Your task to perform on an android device: Go to wifi settings Image 0: 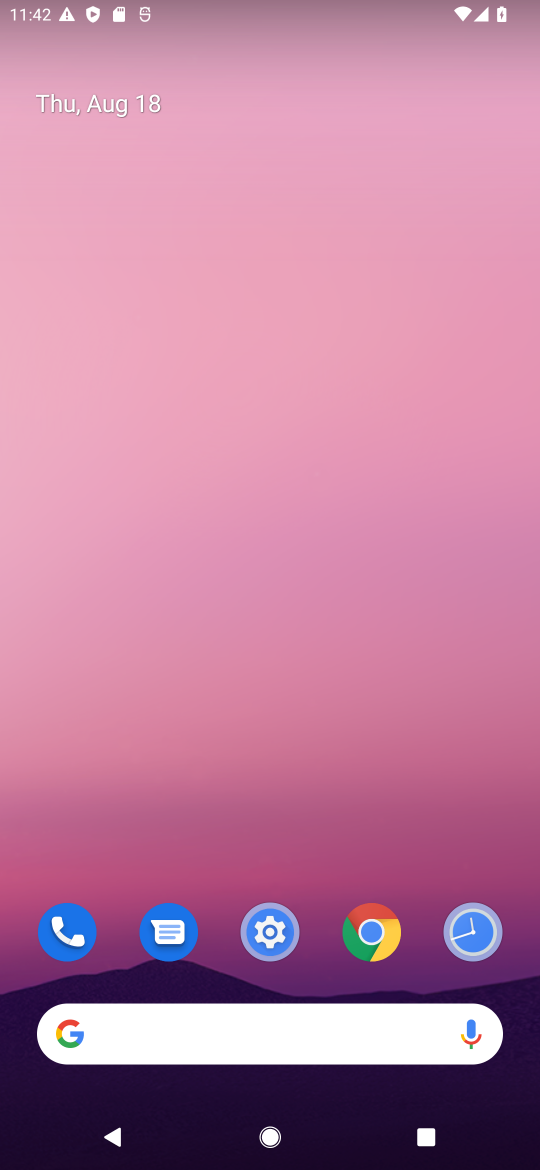
Step 0: click (255, 940)
Your task to perform on an android device: Go to wifi settings Image 1: 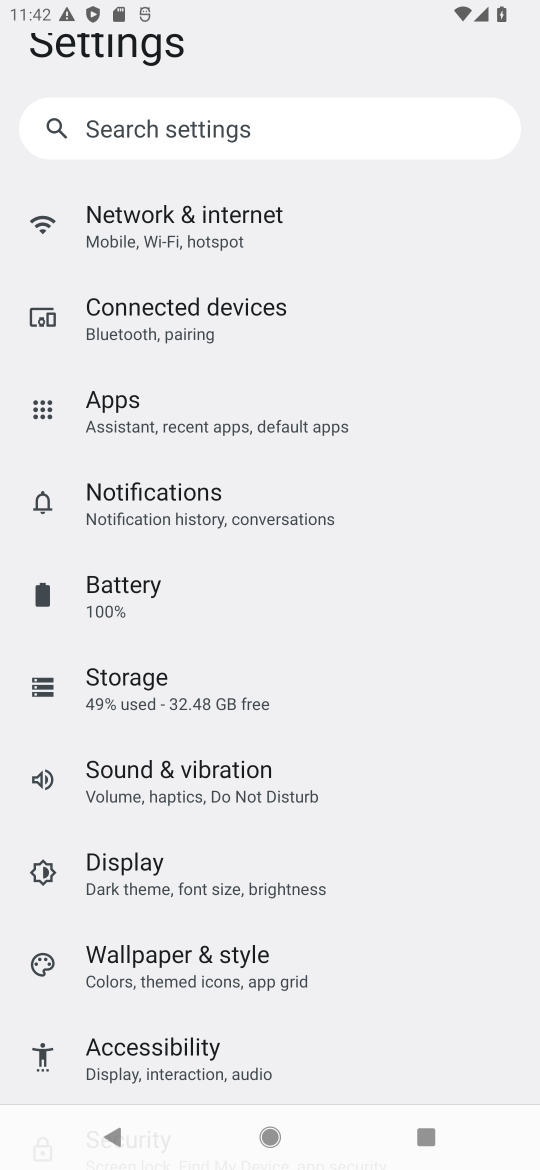
Step 1: click (159, 226)
Your task to perform on an android device: Go to wifi settings Image 2: 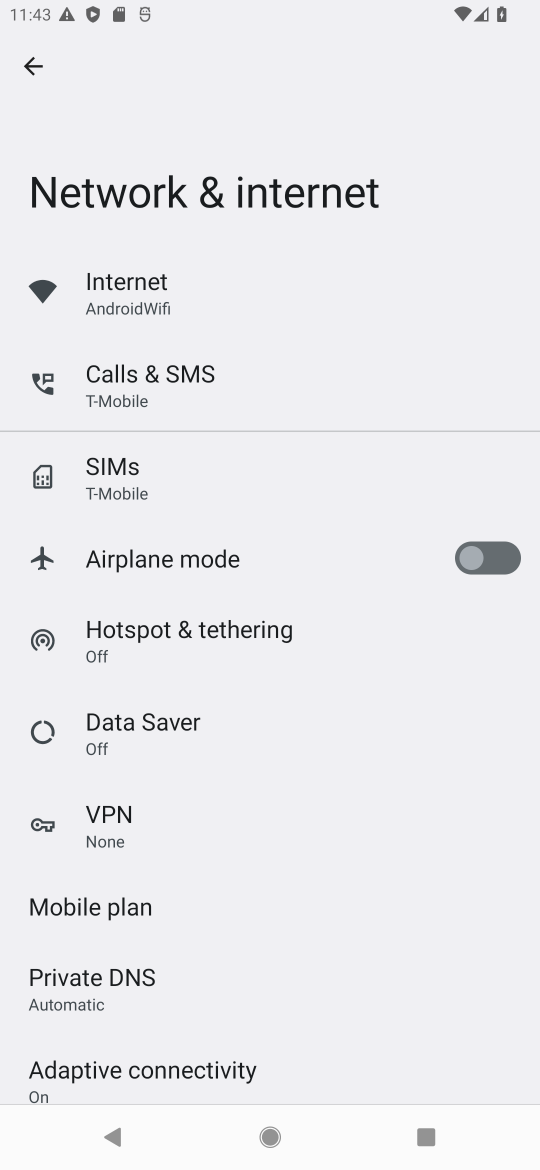
Step 2: click (119, 287)
Your task to perform on an android device: Go to wifi settings Image 3: 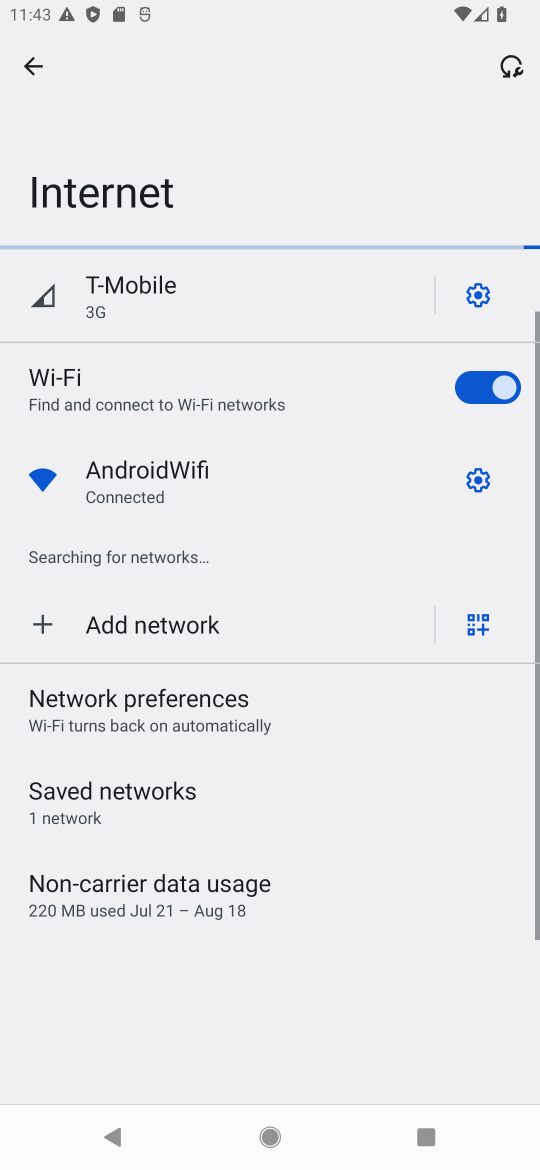
Step 3: task complete